Your task to perform on an android device: Do I have any events today? Image 0: 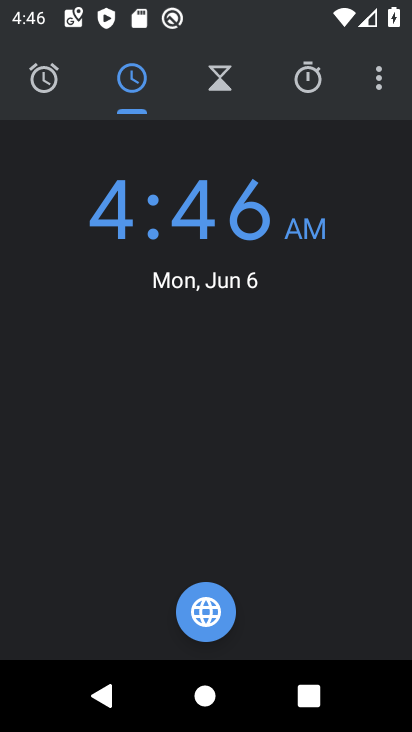
Step 0: press home button
Your task to perform on an android device: Do I have any events today? Image 1: 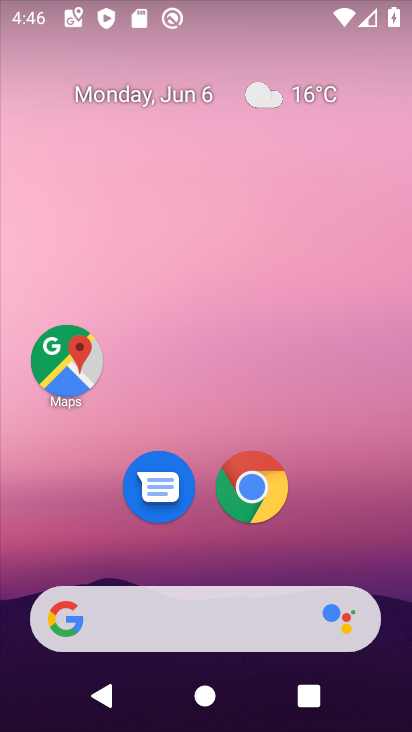
Step 1: drag from (200, 558) to (253, 9)
Your task to perform on an android device: Do I have any events today? Image 2: 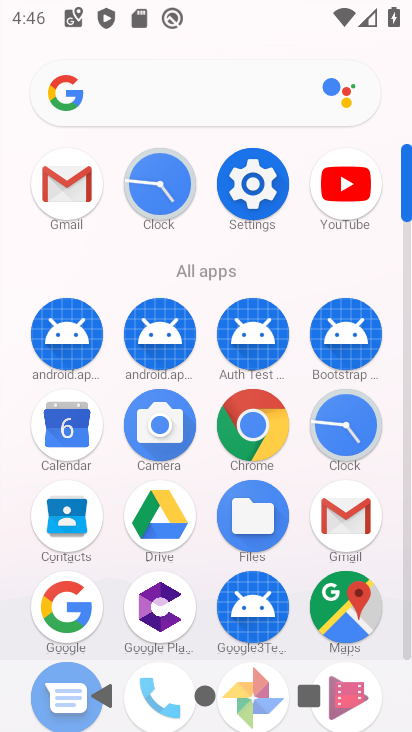
Step 2: click (83, 428)
Your task to perform on an android device: Do I have any events today? Image 3: 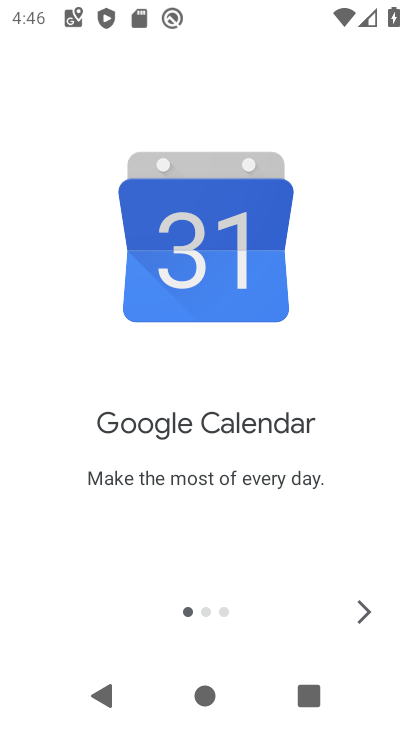
Step 3: click (356, 606)
Your task to perform on an android device: Do I have any events today? Image 4: 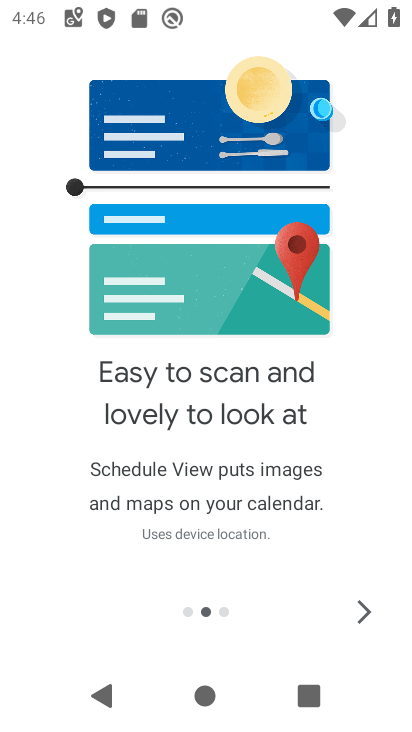
Step 4: click (356, 606)
Your task to perform on an android device: Do I have any events today? Image 5: 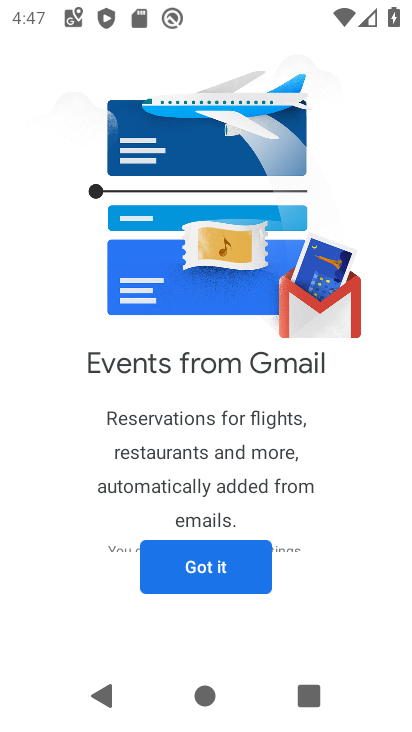
Step 5: click (257, 583)
Your task to perform on an android device: Do I have any events today? Image 6: 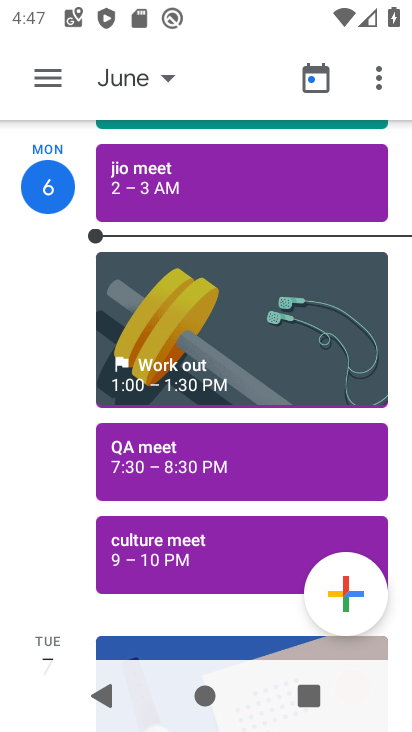
Step 6: task complete